Your task to perform on an android device: Go to Amazon Image 0: 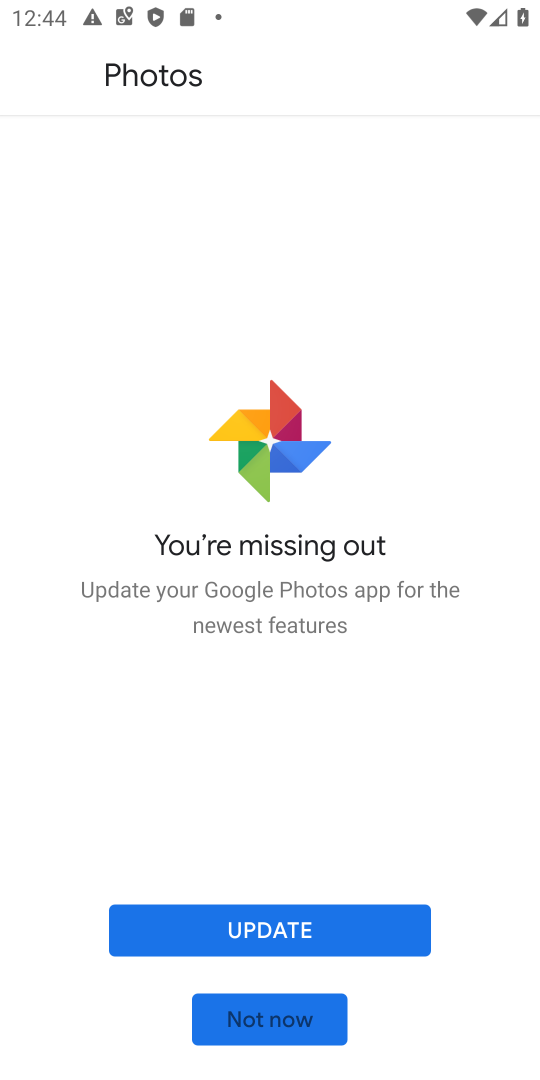
Step 0: press back button
Your task to perform on an android device: Go to Amazon Image 1: 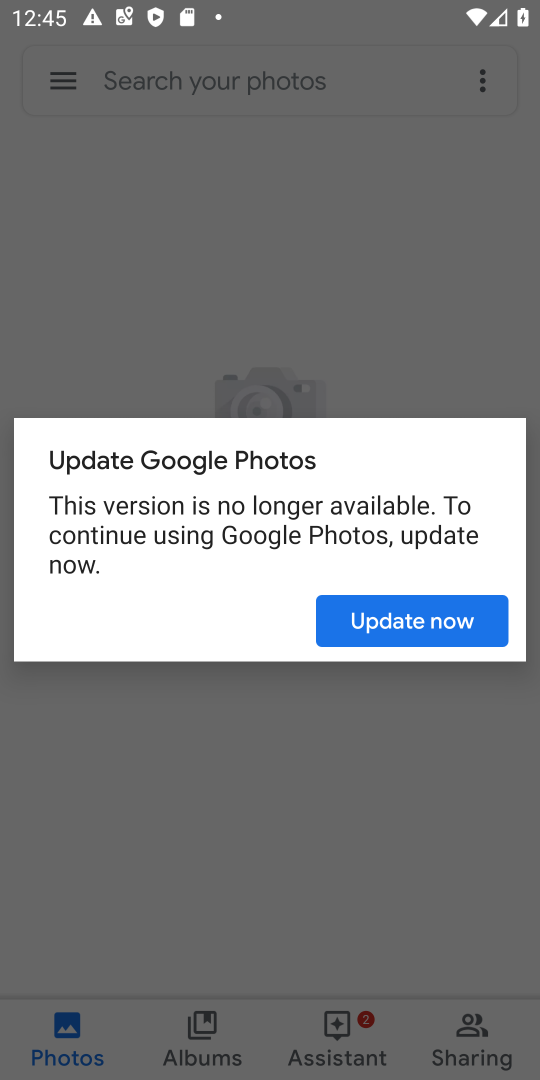
Step 1: press home button
Your task to perform on an android device: Go to Amazon Image 2: 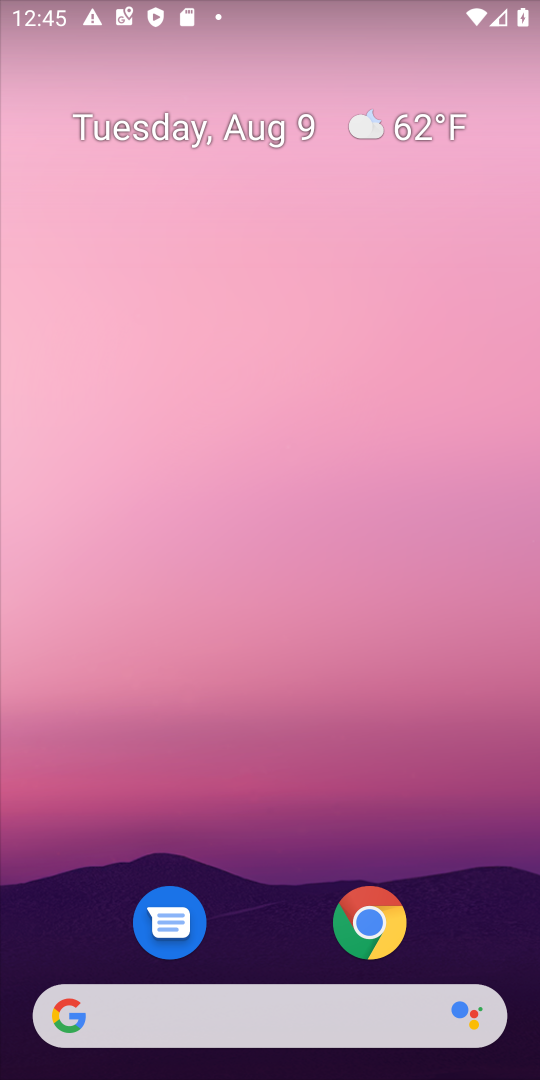
Step 2: click (348, 935)
Your task to perform on an android device: Go to Amazon Image 3: 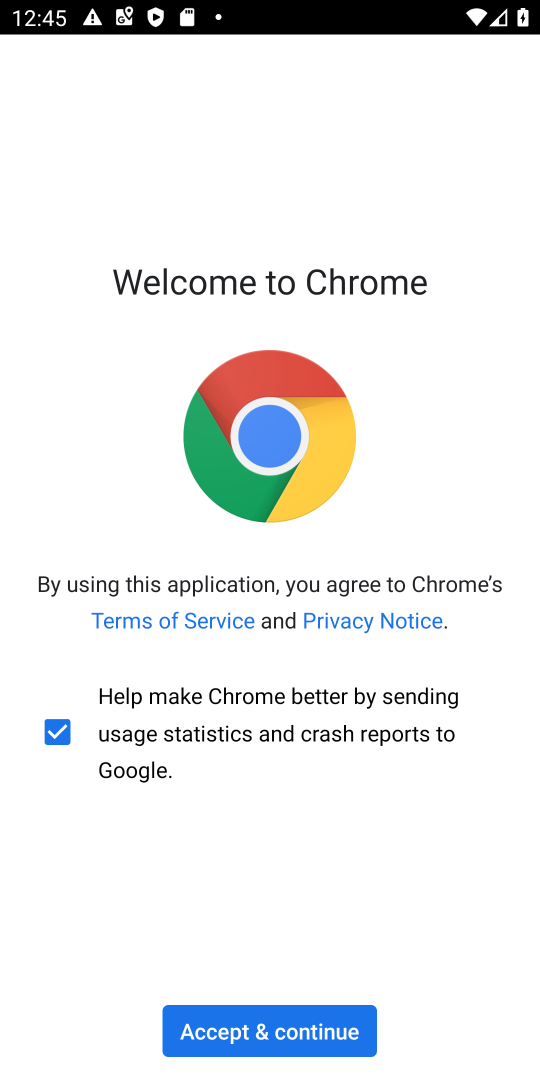
Step 3: click (276, 1006)
Your task to perform on an android device: Go to Amazon Image 4: 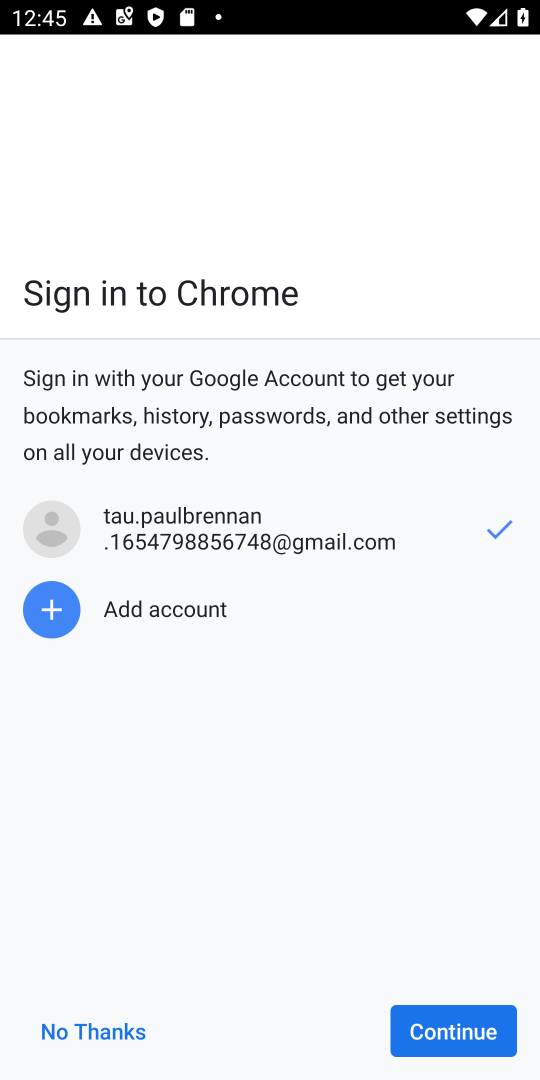
Step 4: click (486, 1042)
Your task to perform on an android device: Go to Amazon Image 5: 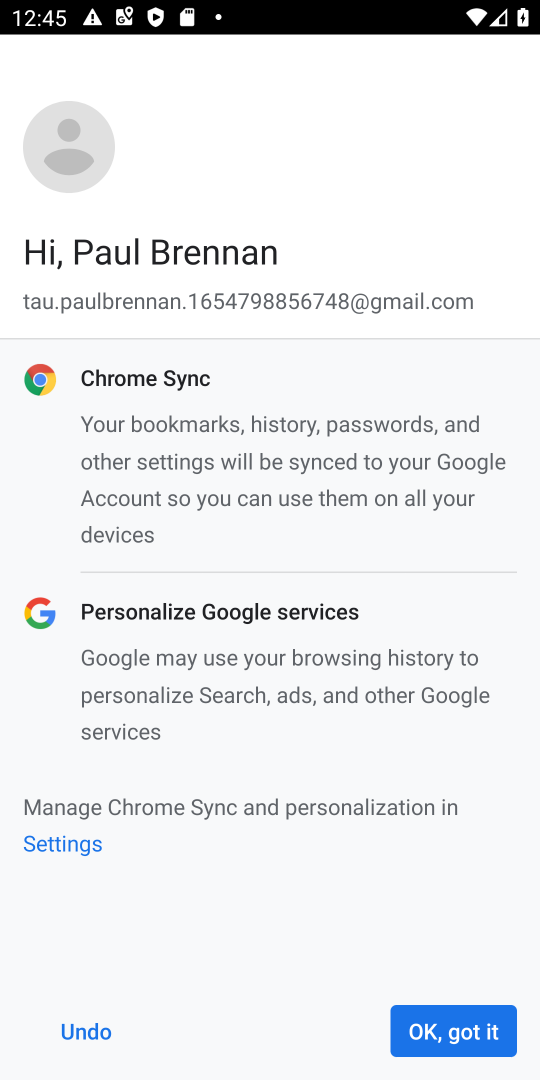
Step 5: click (486, 1042)
Your task to perform on an android device: Go to Amazon Image 6: 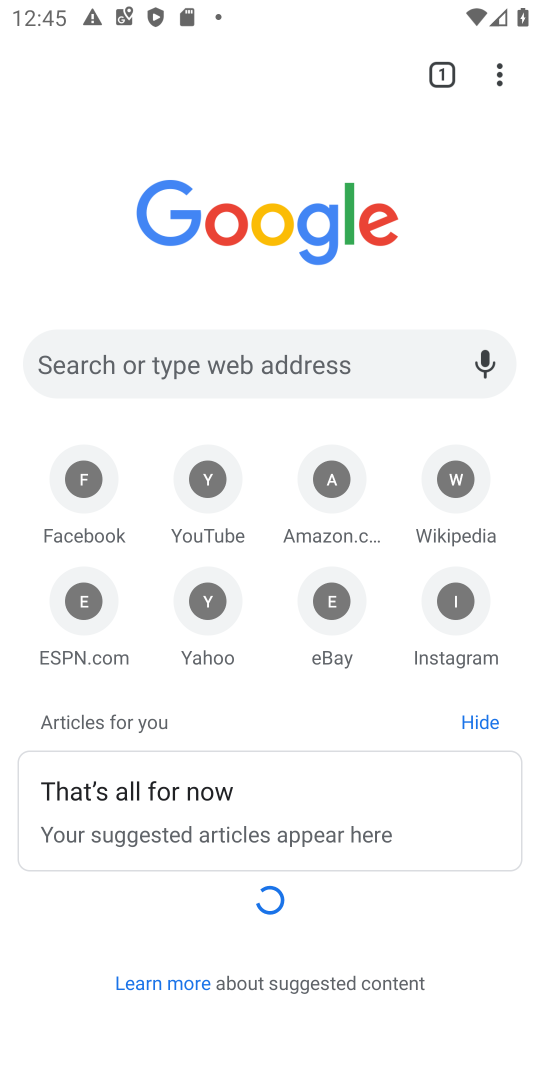
Step 6: click (321, 472)
Your task to perform on an android device: Go to Amazon Image 7: 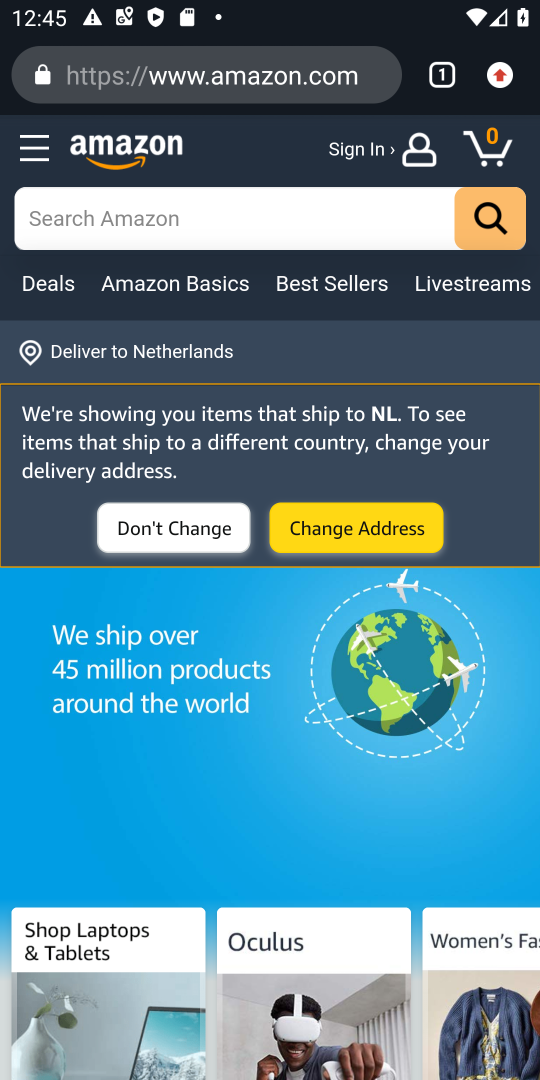
Step 7: task complete